Your task to perform on an android device: check the backup settings in the google photos Image 0: 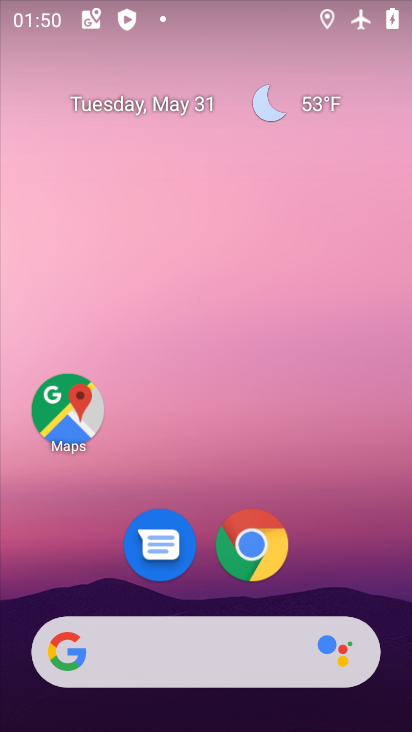
Step 0: drag from (329, 468) to (288, 271)
Your task to perform on an android device: check the backup settings in the google photos Image 1: 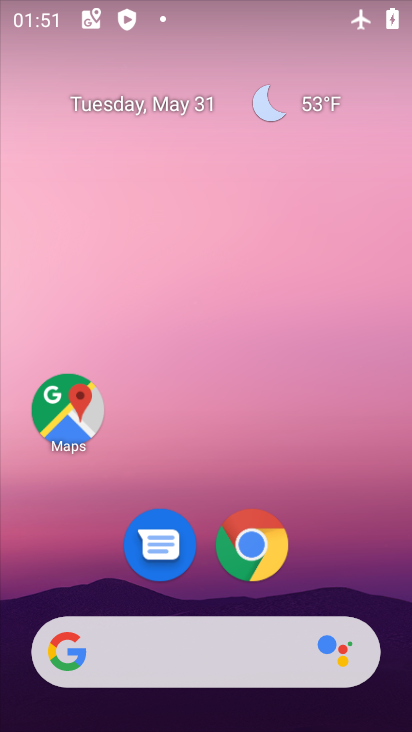
Step 1: drag from (380, 619) to (324, 76)
Your task to perform on an android device: check the backup settings in the google photos Image 2: 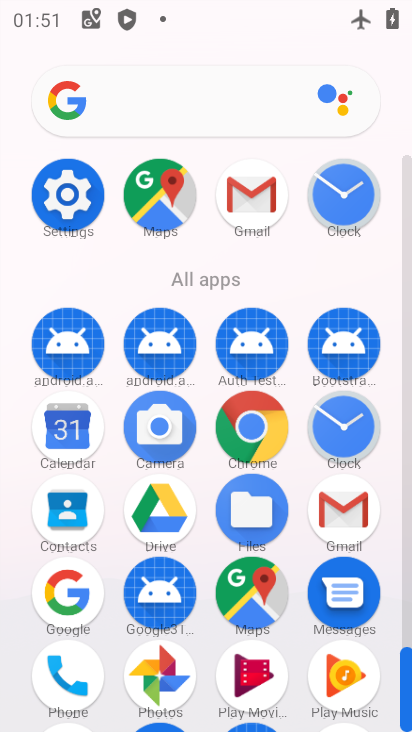
Step 2: drag from (284, 296) to (262, 27)
Your task to perform on an android device: check the backup settings in the google photos Image 3: 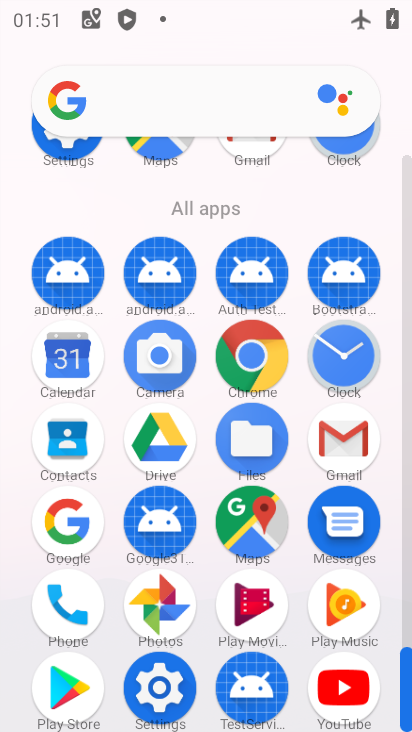
Step 3: click (162, 612)
Your task to perform on an android device: check the backup settings in the google photos Image 4: 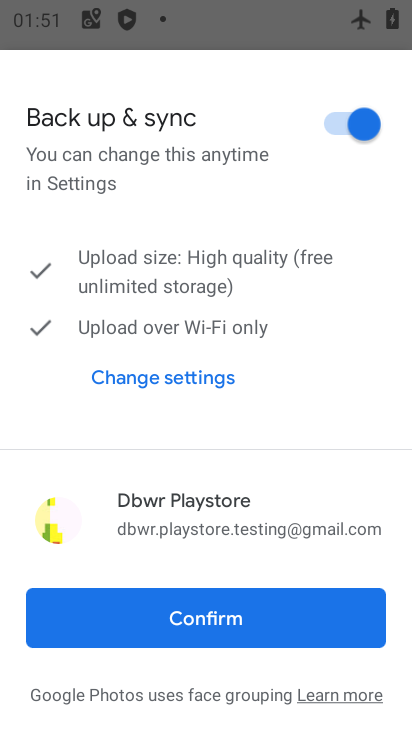
Step 4: click (162, 612)
Your task to perform on an android device: check the backup settings in the google photos Image 5: 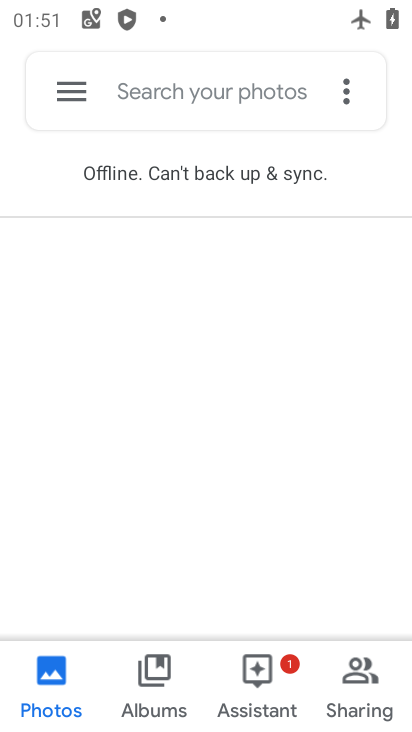
Step 5: click (78, 101)
Your task to perform on an android device: check the backup settings in the google photos Image 6: 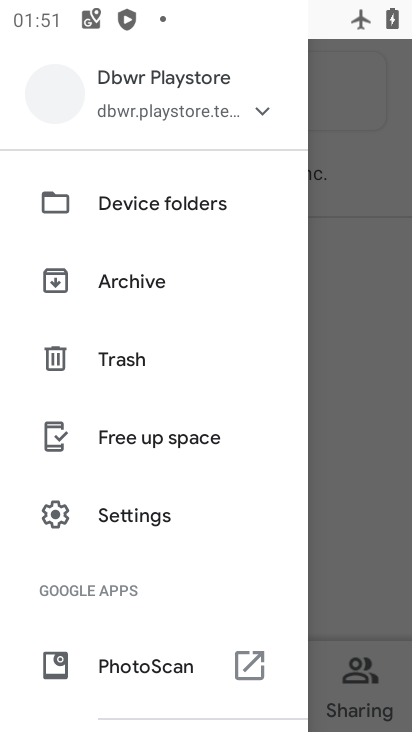
Step 6: click (166, 528)
Your task to perform on an android device: check the backup settings in the google photos Image 7: 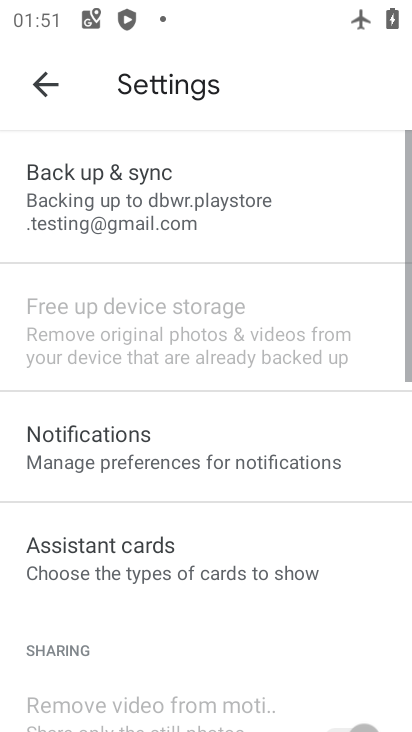
Step 7: click (167, 170)
Your task to perform on an android device: check the backup settings in the google photos Image 8: 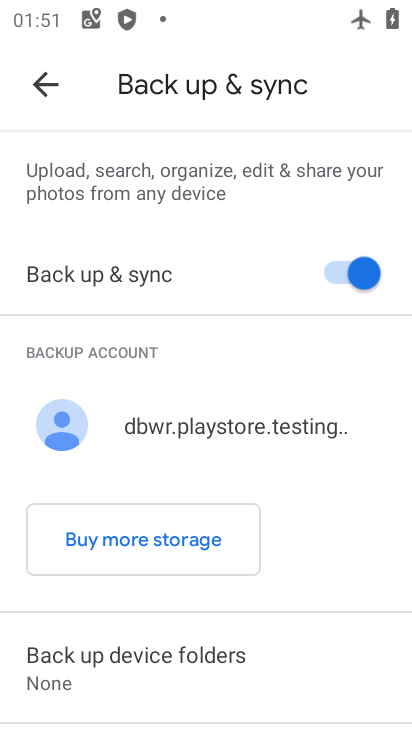
Step 8: task complete